Your task to perform on an android device: make emails show in primary in the gmail app Image 0: 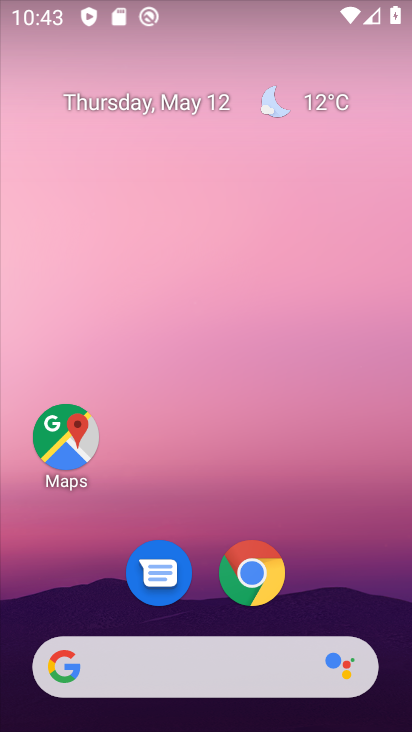
Step 0: drag from (213, 388) to (236, 74)
Your task to perform on an android device: make emails show in primary in the gmail app Image 1: 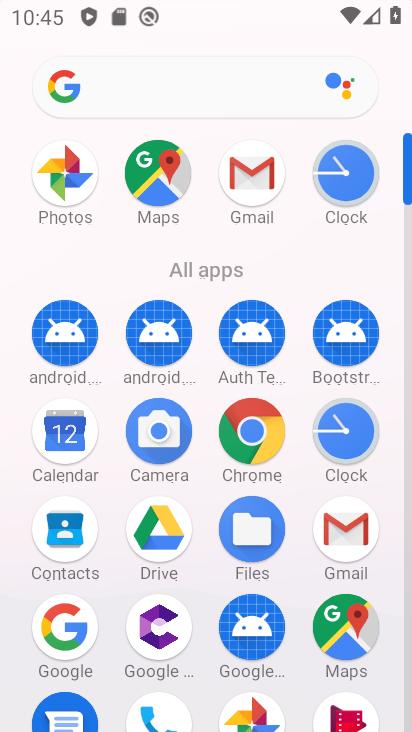
Step 1: drag from (219, 358) to (375, 15)
Your task to perform on an android device: make emails show in primary in the gmail app Image 2: 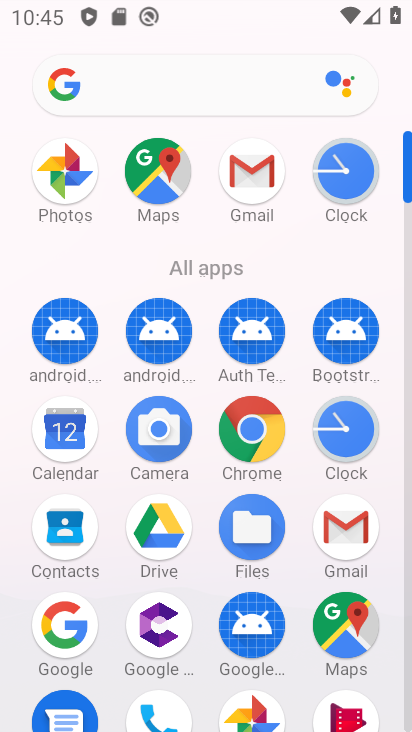
Step 2: click (326, 521)
Your task to perform on an android device: make emails show in primary in the gmail app Image 3: 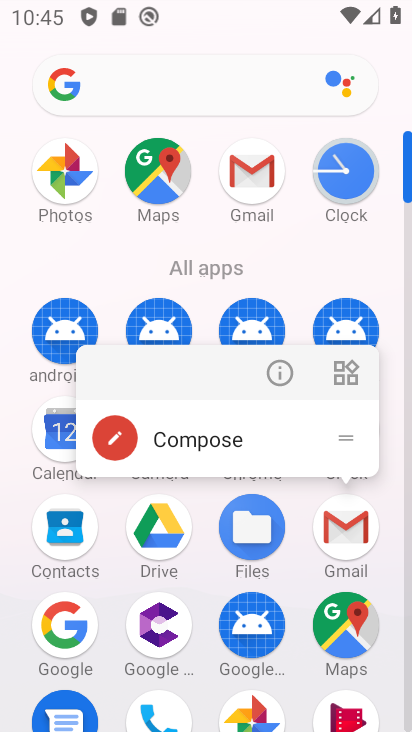
Step 3: click (334, 553)
Your task to perform on an android device: make emails show in primary in the gmail app Image 4: 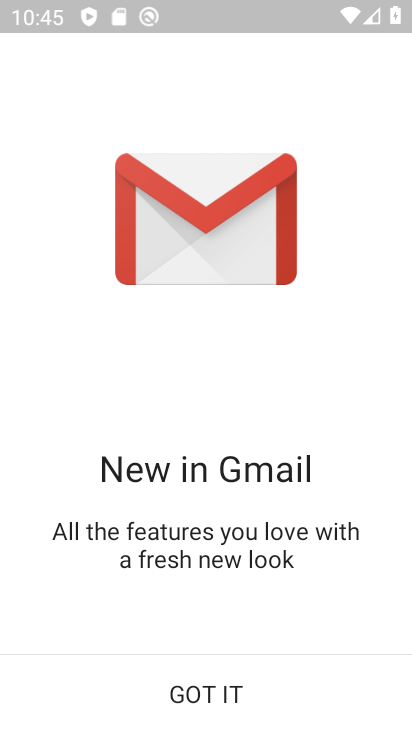
Step 4: click (239, 675)
Your task to perform on an android device: make emails show in primary in the gmail app Image 5: 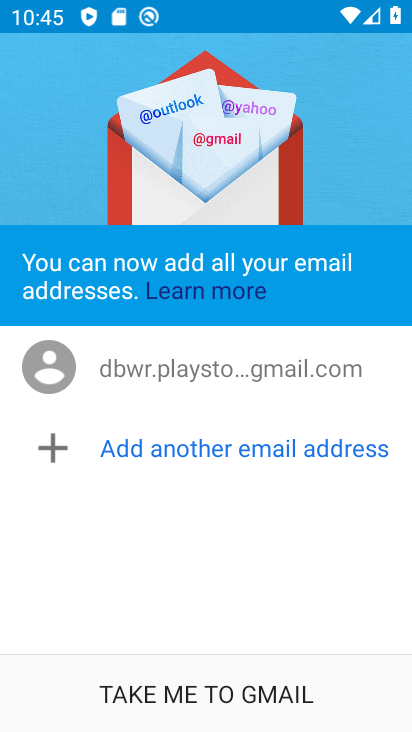
Step 5: click (239, 675)
Your task to perform on an android device: make emails show in primary in the gmail app Image 6: 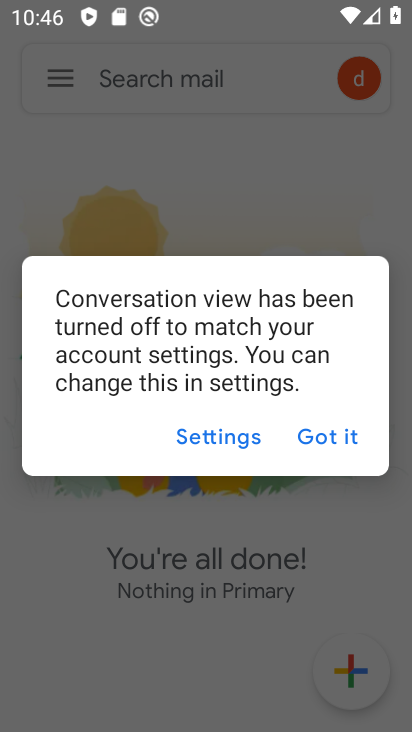
Step 6: click (346, 440)
Your task to perform on an android device: make emails show in primary in the gmail app Image 7: 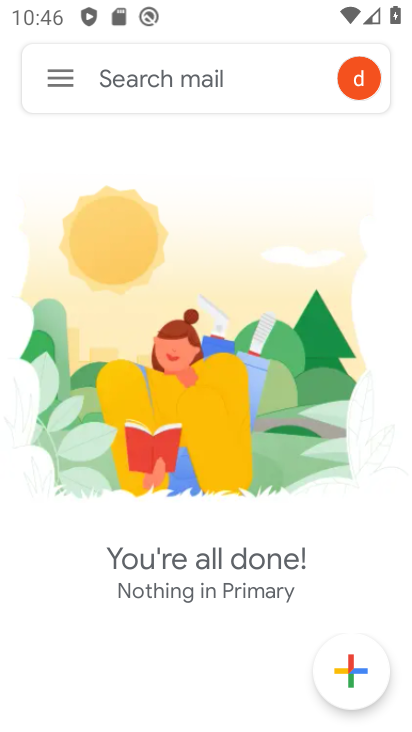
Step 7: click (58, 83)
Your task to perform on an android device: make emails show in primary in the gmail app Image 8: 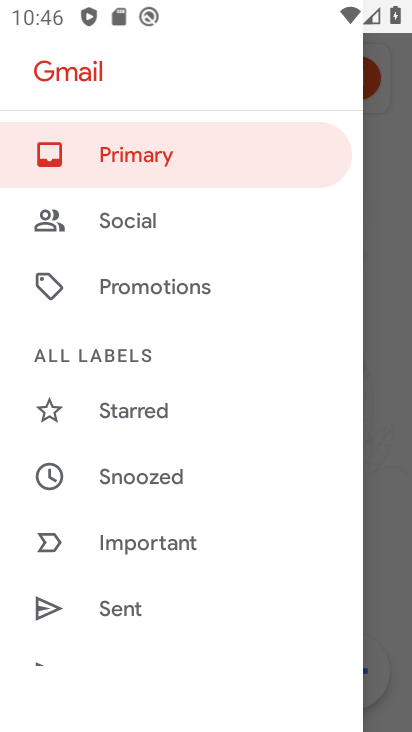
Step 8: task complete